Your task to perform on an android device: install app "Calculator" Image 0: 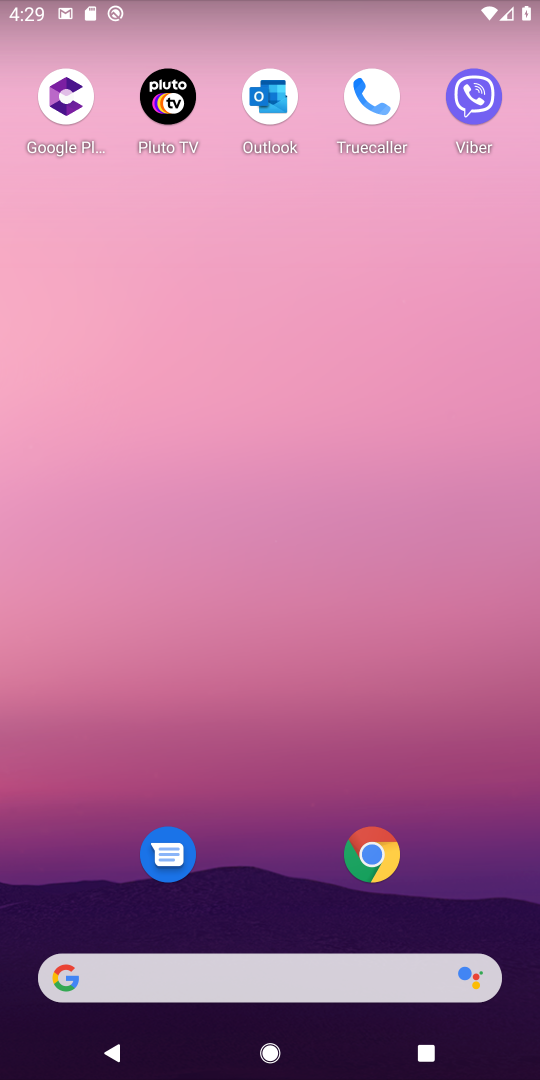
Step 0: drag from (254, 915) to (219, 3)
Your task to perform on an android device: install app "Calculator" Image 1: 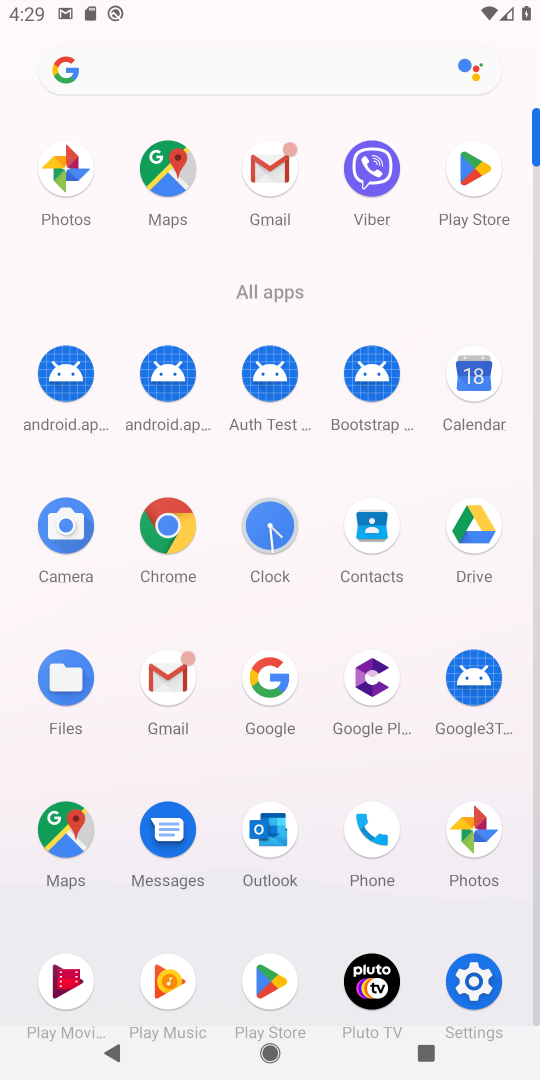
Step 1: click (465, 166)
Your task to perform on an android device: install app "Calculator" Image 2: 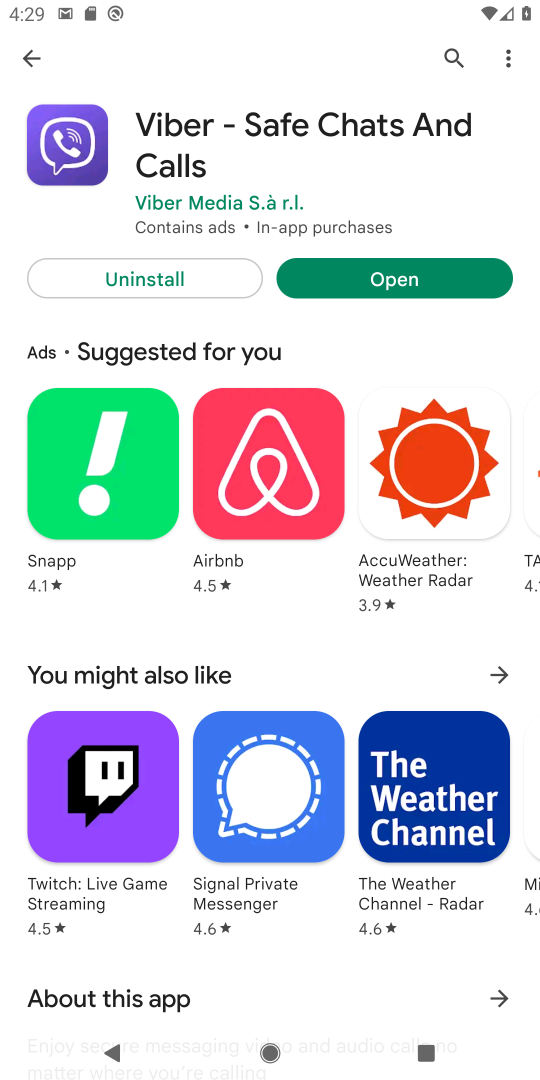
Step 2: click (62, 103)
Your task to perform on an android device: install app "Calculator" Image 3: 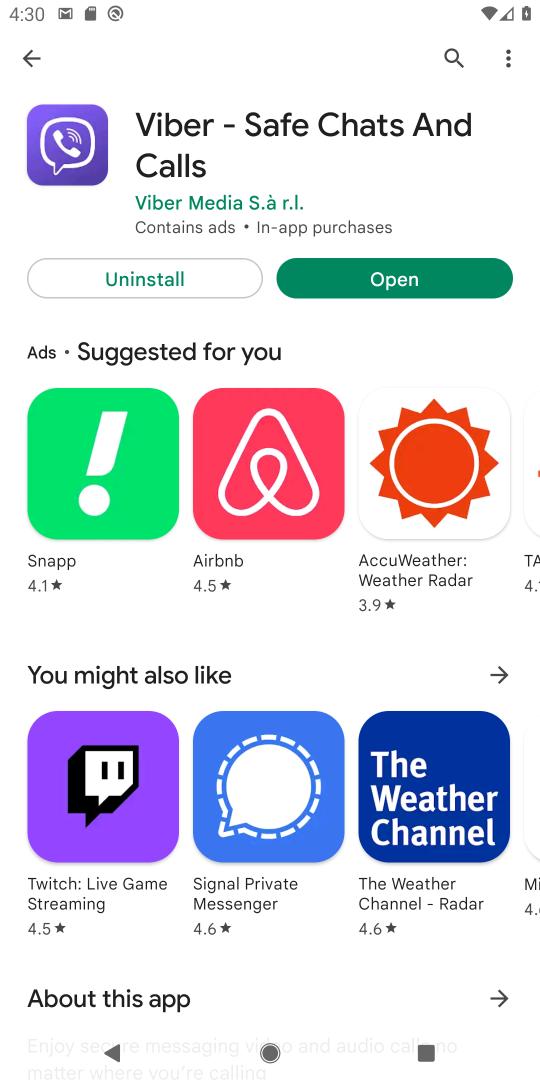
Step 3: click (19, 58)
Your task to perform on an android device: install app "Calculator" Image 4: 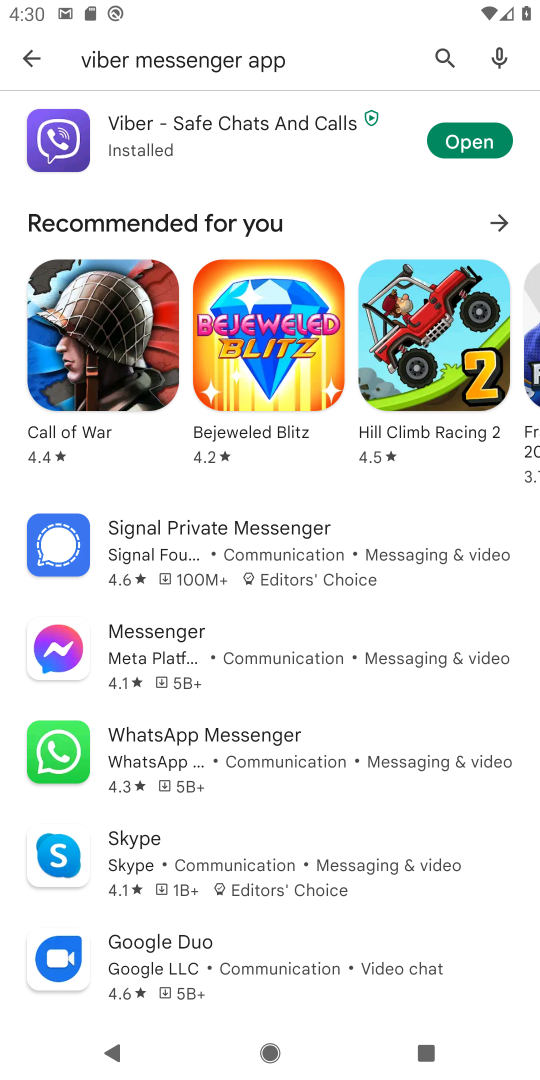
Step 4: click (35, 58)
Your task to perform on an android device: install app "Calculator" Image 5: 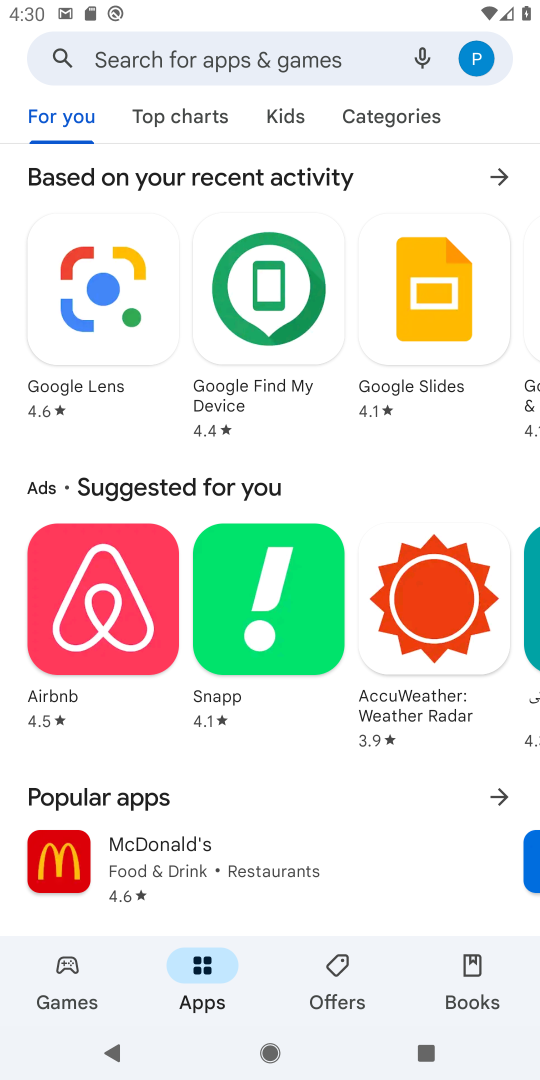
Step 5: click (220, 62)
Your task to perform on an android device: install app "Calculator" Image 6: 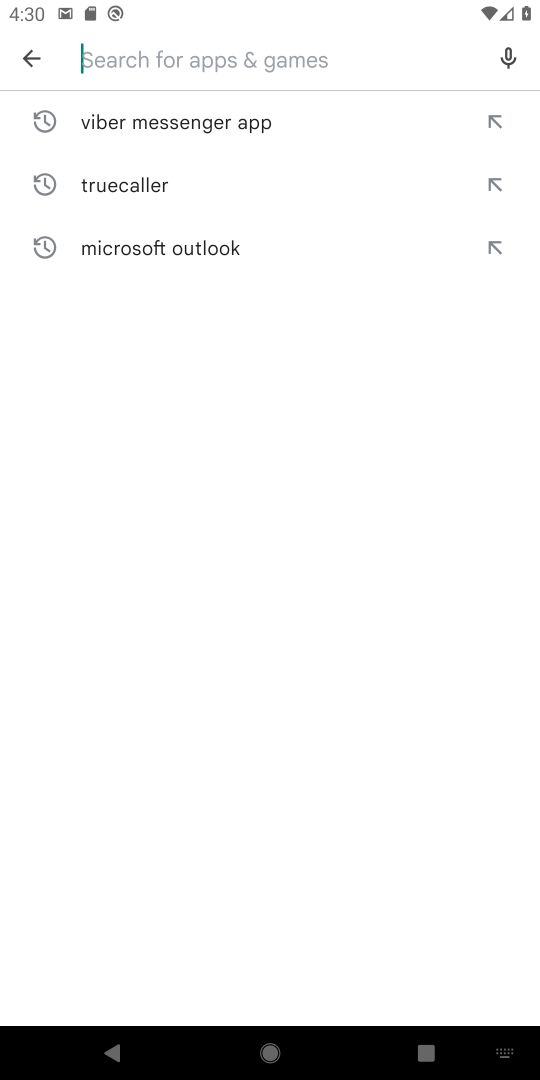
Step 6: type "Calculator"
Your task to perform on an android device: install app "Calculator" Image 7: 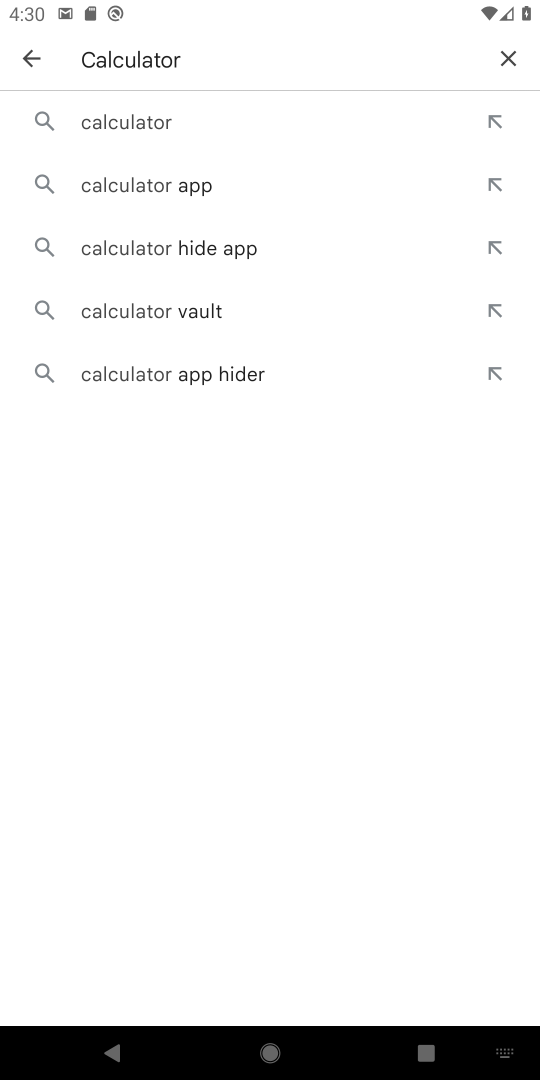
Step 7: click (118, 123)
Your task to perform on an android device: install app "Calculator" Image 8: 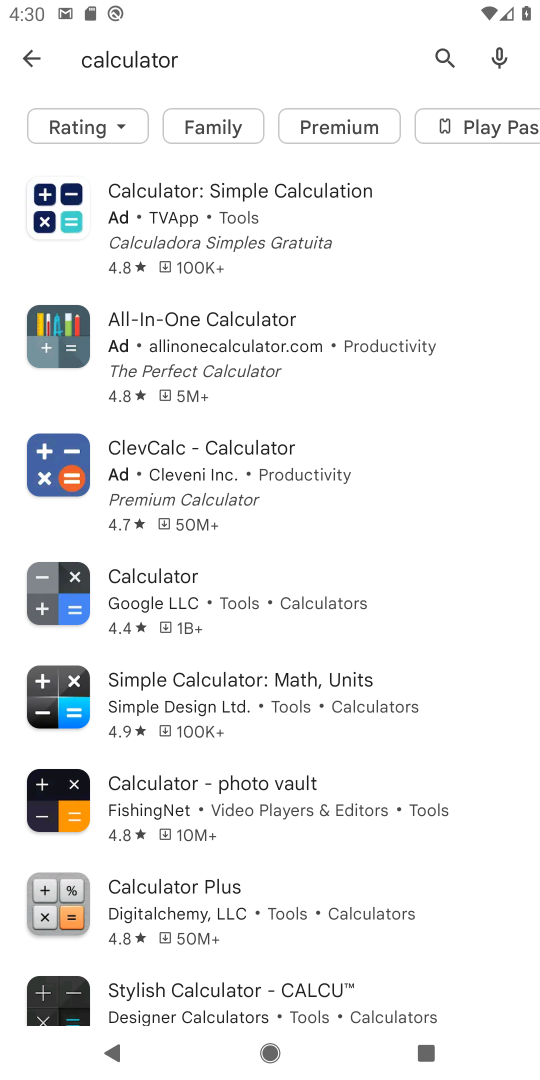
Step 8: click (208, 211)
Your task to perform on an android device: install app "Calculator" Image 9: 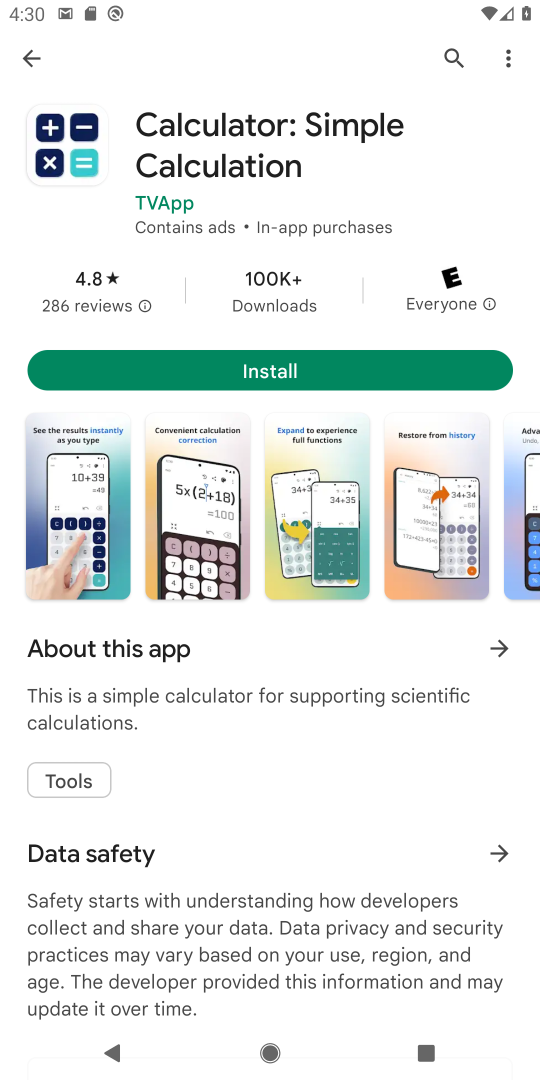
Step 9: click (264, 381)
Your task to perform on an android device: install app "Calculator" Image 10: 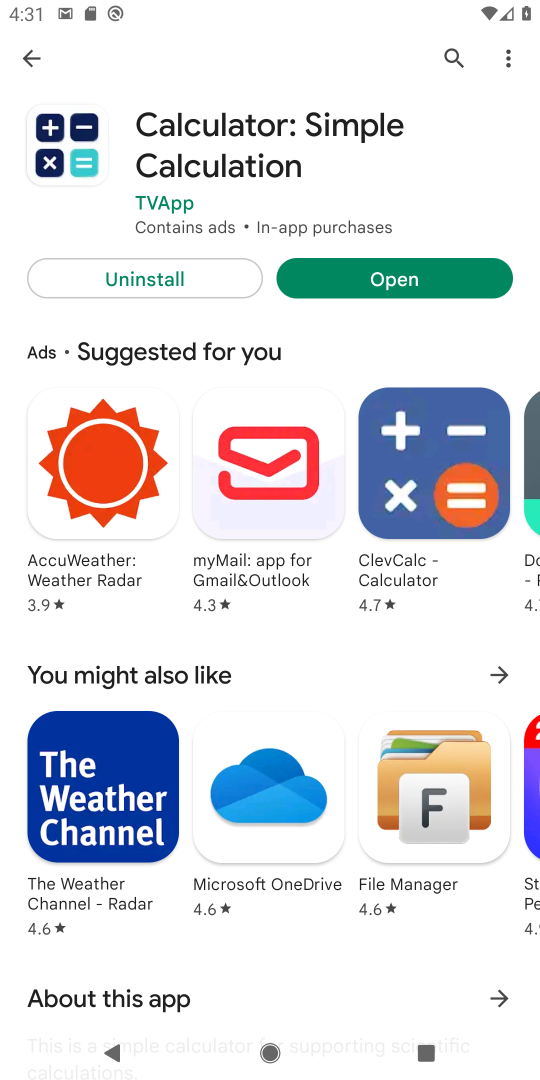
Step 10: click (402, 266)
Your task to perform on an android device: install app "Calculator" Image 11: 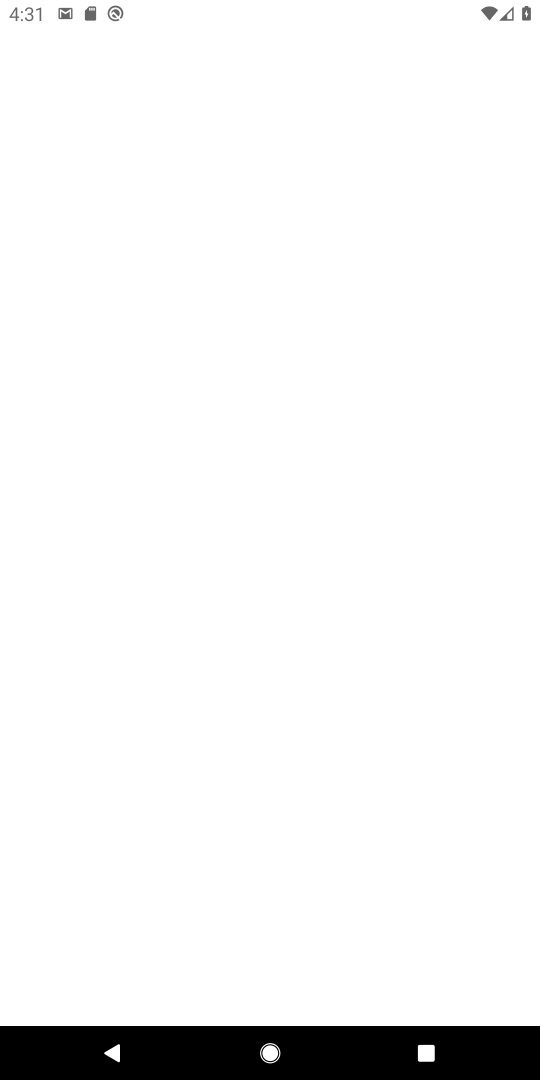
Step 11: task complete